Your task to perform on an android device: Clear all items from cart on newegg. Add "razer huntsman" to the cart on newegg, then select checkout. Image 0: 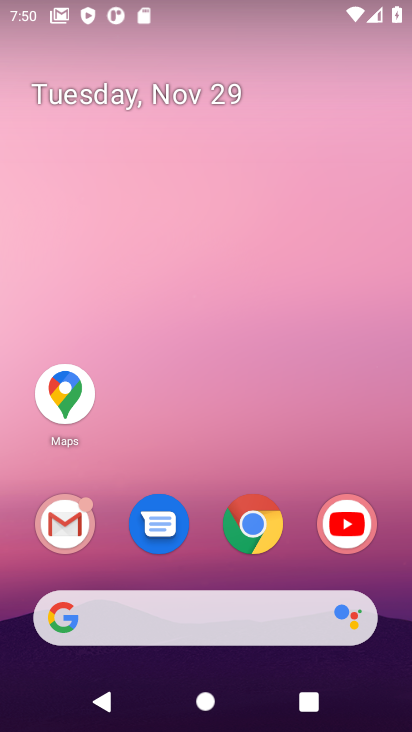
Step 0: click (250, 525)
Your task to perform on an android device: Clear all items from cart on newegg. Add "razer huntsman" to the cart on newegg, then select checkout. Image 1: 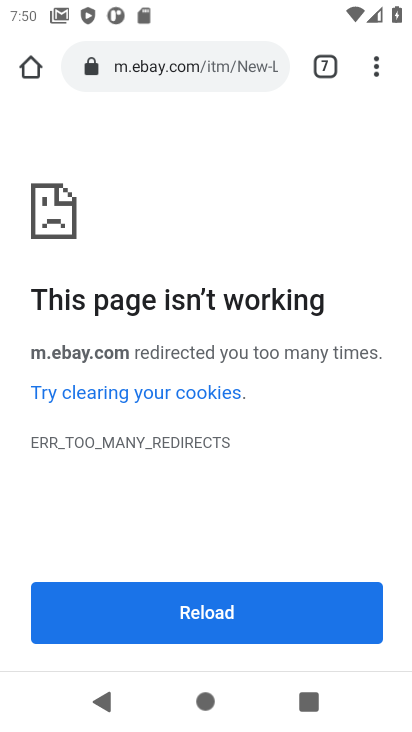
Step 1: click (180, 74)
Your task to perform on an android device: Clear all items from cart on newegg. Add "razer huntsman" to the cart on newegg, then select checkout. Image 2: 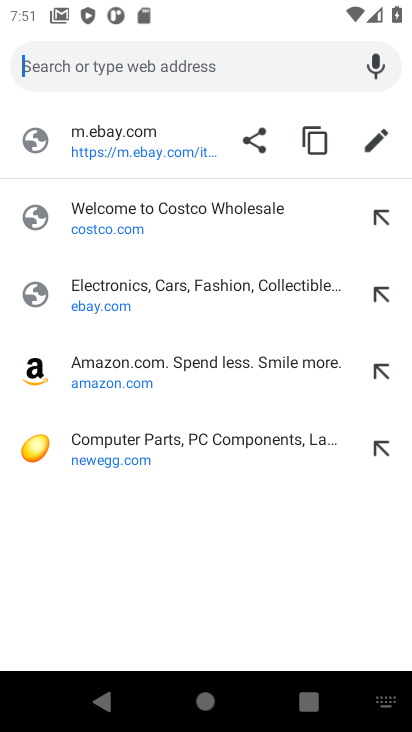
Step 2: click (88, 435)
Your task to perform on an android device: Clear all items from cart on newegg. Add "razer huntsman" to the cart on newegg, then select checkout. Image 3: 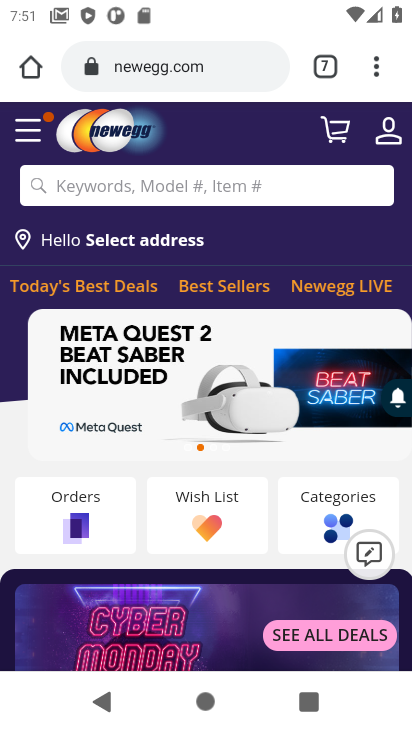
Step 3: click (336, 133)
Your task to perform on an android device: Clear all items from cart on newegg. Add "razer huntsman" to the cart on newegg, then select checkout. Image 4: 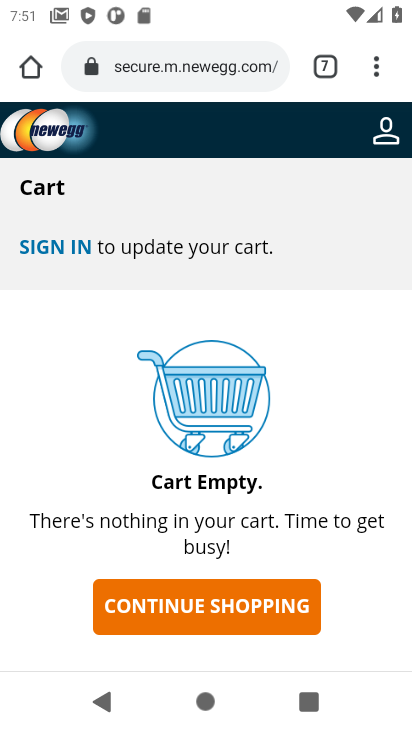
Step 4: click (187, 599)
Your task to perform on an android device: Clear all items from cart on newegg. Add "razer huntsman" to the cart on newegg, then select checkout. Image 5: 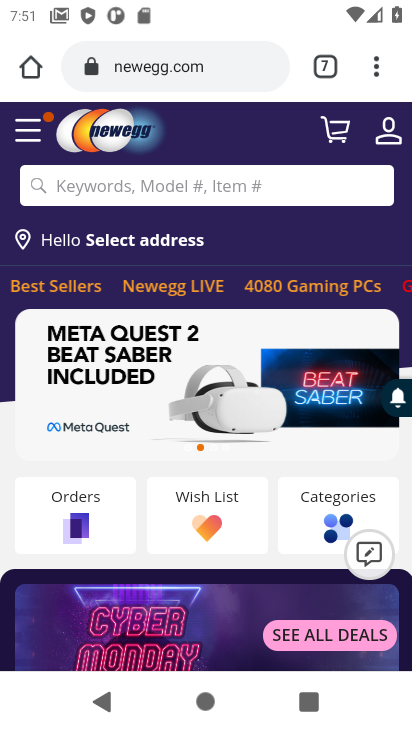
Step 5: click (74, 193)
Your task to perform on an android device: Clear all items from cart on newegg. Add "razer huntsman" to the cart on newegg, then select checkout. Image 6: 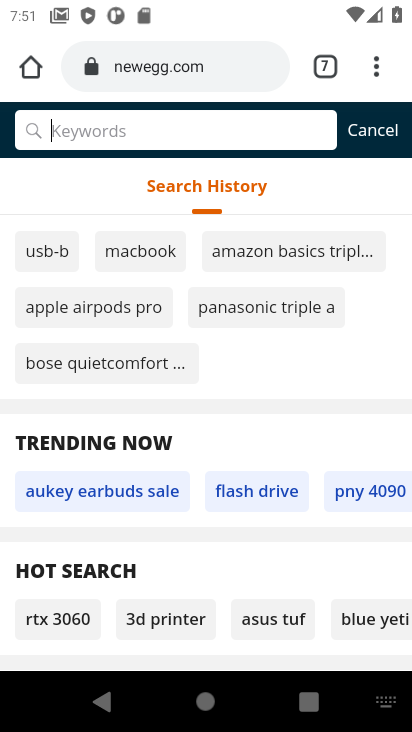
Step 6: type "razer huntsman"
Your task to perform on an android device: Clear all items from cart on newegg. Add "razer huntsman" to the cart on newegg, then select checkout. Image 7: 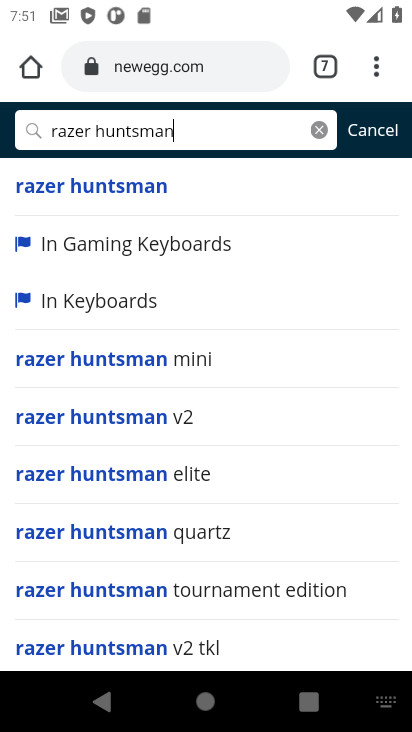
Step 7: click (62, 192)
Your task to perform on an android device: Clear all items from cart on newegg. Add "razer huntsman" to the cart on newegg, then select checkout. Image 8: 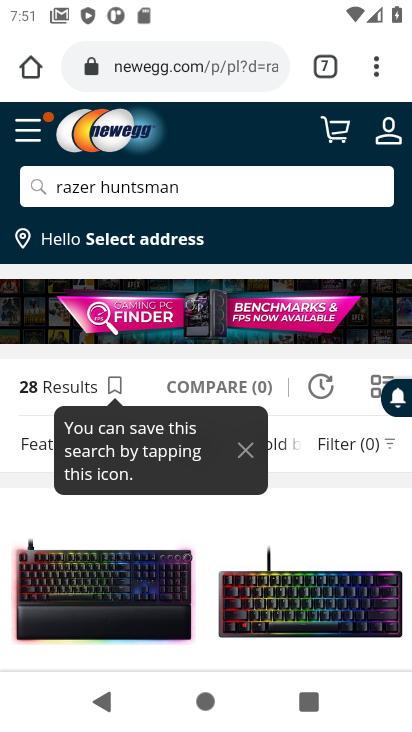
Step 8: drag from (137, 547) to (137, 272)
Your task to perform on an android device: Clear all items from cart on newegg. Add "razer huntsman" to the cart on newegg, then select checkout. Image 9: 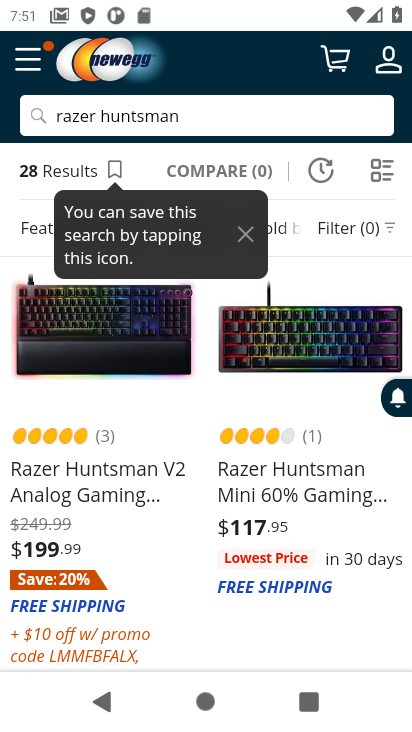
Step 9: click (92, 328)
Your task to perform on an android device: Clear all items from cart on newegg. Add "razer huntsman" to the cart on newegg, then select checkout. Image 10: 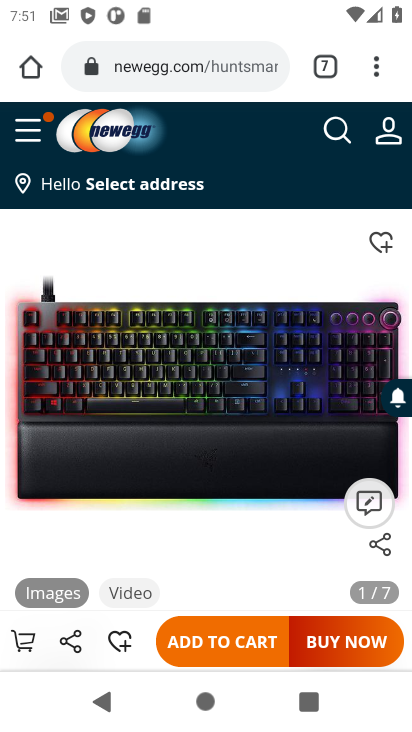
Step 10: click (234, 643)
Your task to perform on an android device: Clear all items from cart on newegg. Add "razer huntsman" to the cart on newegg, then select checkout. Image 11: 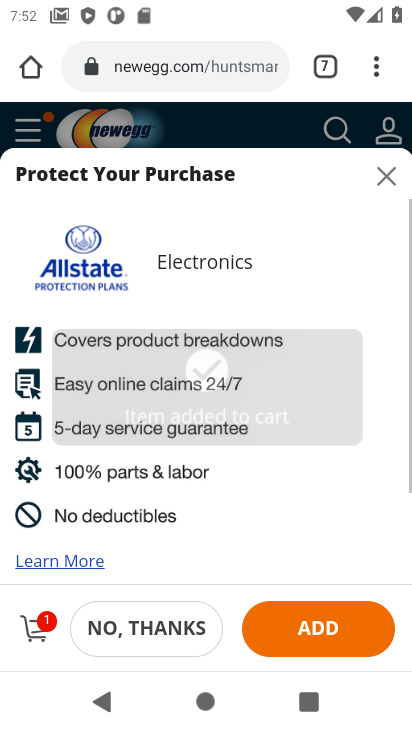
Step 11: click (34, 634)
Your task to perform on an android device: Clear all items from cart on newegg. Add "razer huntsman" to the cart on newegg, then select checkout. Image 12: 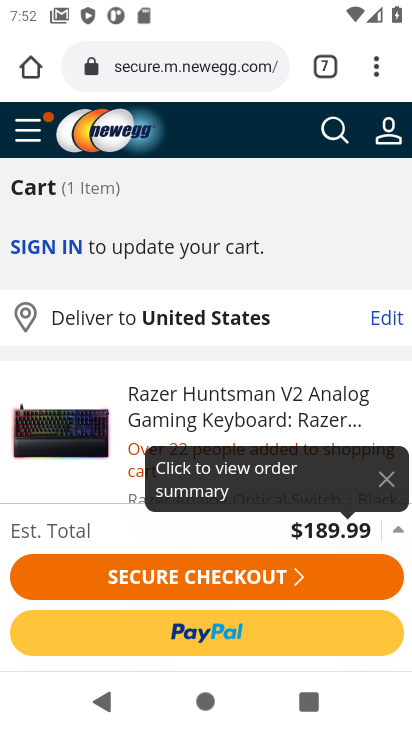
Step 12: click (192, 575)
Your task to perform on an android device: Clear all items from cart on newegg. Add "razer huntsman" to the cart on newegg, then select checkout. Image 13: 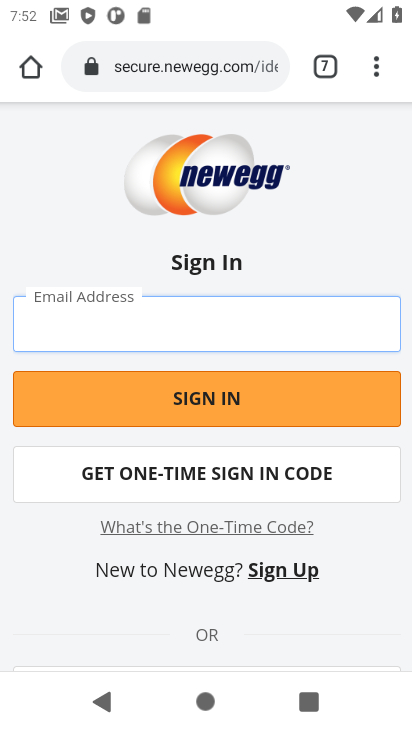
Step 13: task complete